Your task to perform on an android device: change keyboard looks Image 0: 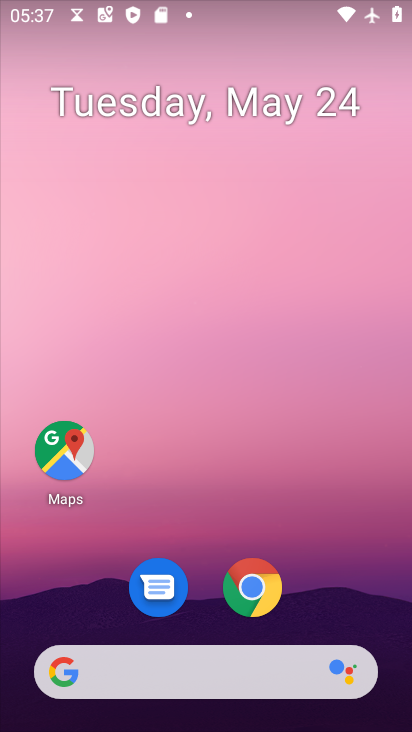
Step 0: click (223, 70)
Your task to perform on an android device: change keyboard looks Image 1: 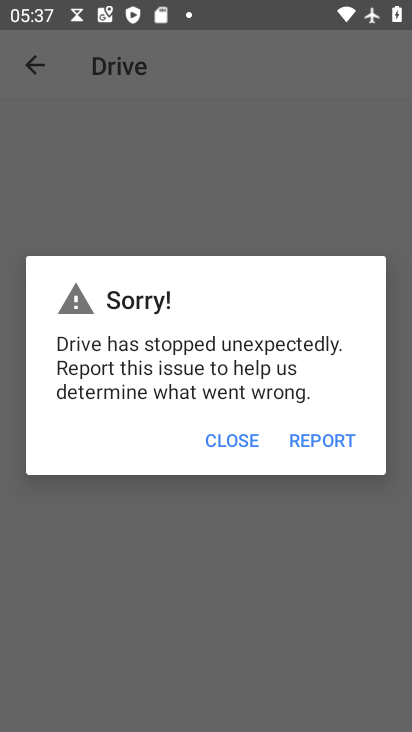
Step 1: press home button
Your task to perform on an android device: change keyboard looks Image 2: 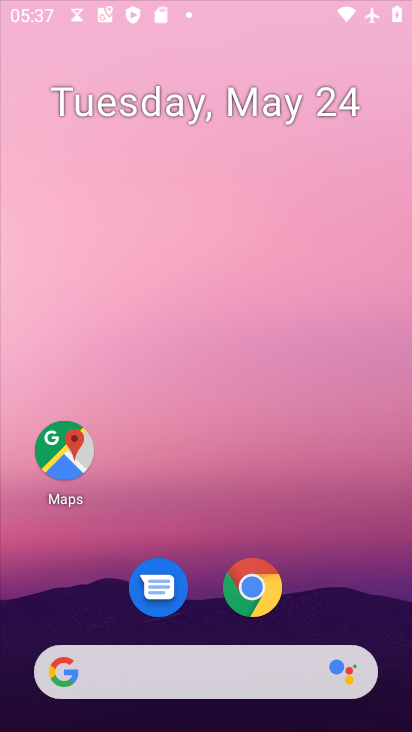
Step 2: drag from (307, 524) to (213, 67)
Your task to perform on an android device: change keyboard looks Image 3: 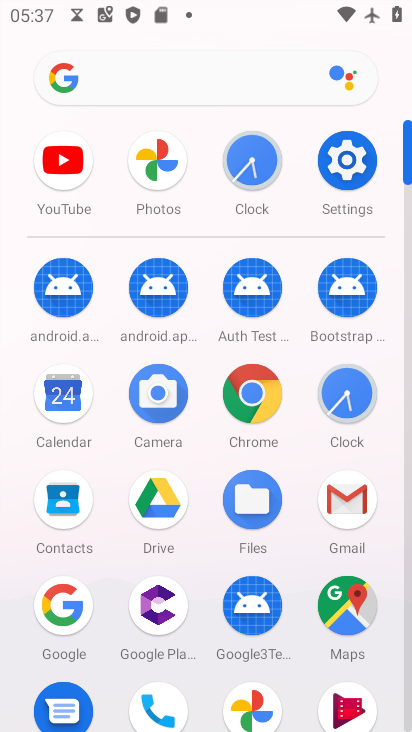
Step 3: click (357, 138)
Your task to perform on an android device: change keyboard looks Image 4: 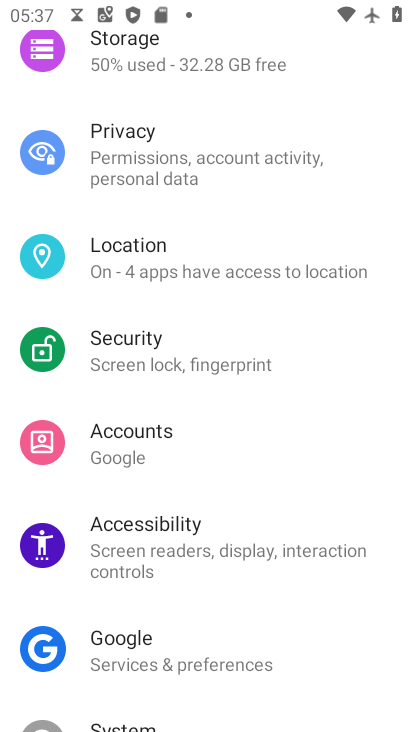
Step 4: drag from (257, 678) to (243, 272)
Your task to perform on an android device: change keyboard looks Image 5: 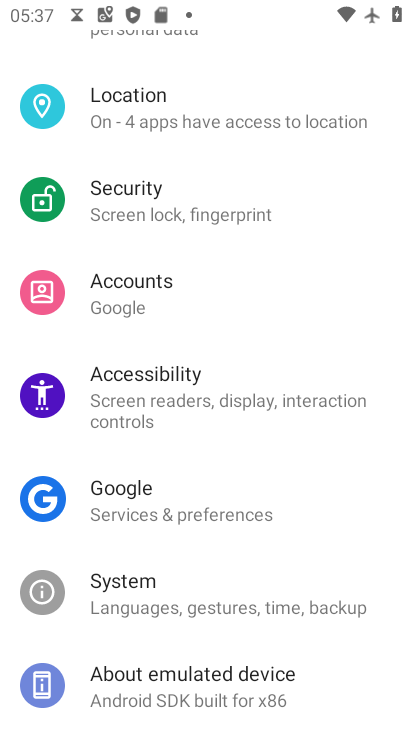
Step 5: click (220, 598)
Your task to perform on an android device: change keyboard looks Image 6: 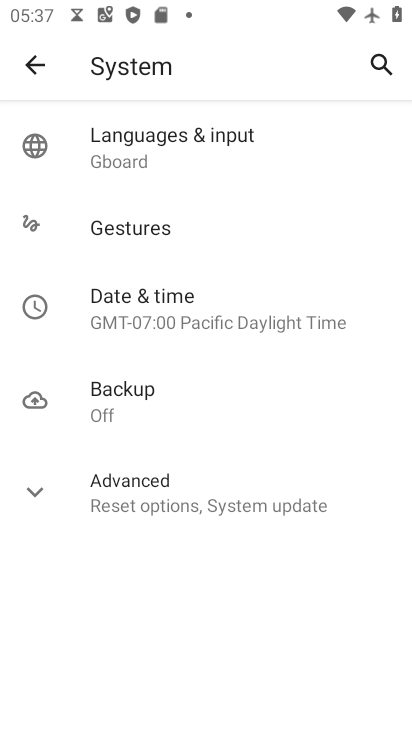
Step 6: click (149, 137)
Your task to perform on an android device: change keyboard looks Image 7: 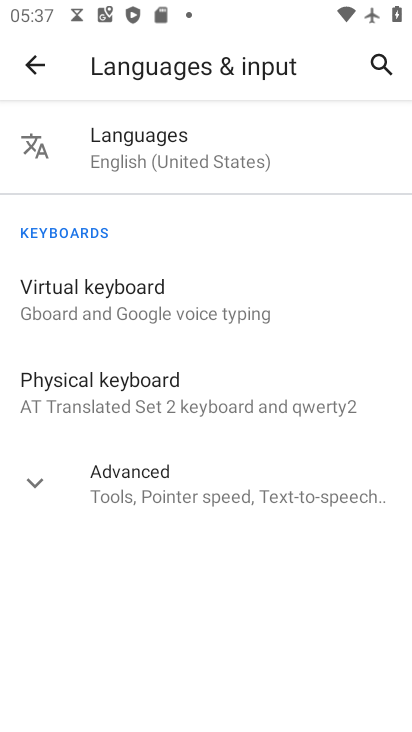
Step 7: click (169, 274)
Your task to perform on an android device: change keyboard looks Image 8: 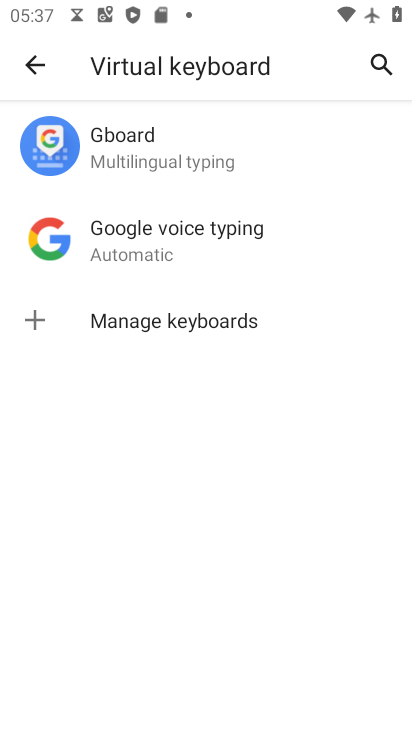
Step 8: click (177, 131)
Your task to perform on an android device: change keyboard looks Image 9: 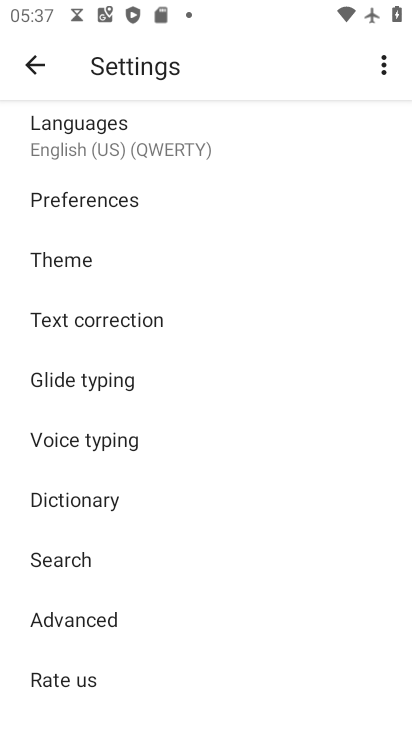
Step 9: click (155, 261)
Your task to perform on an android device: change keyboard looks Image 10: 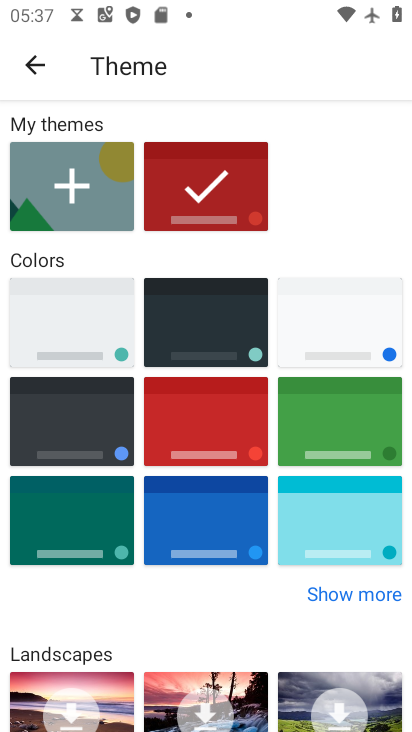
Step 10: click (191, 499)
Your task to perform on an android device: change keyboard looks Image 11: 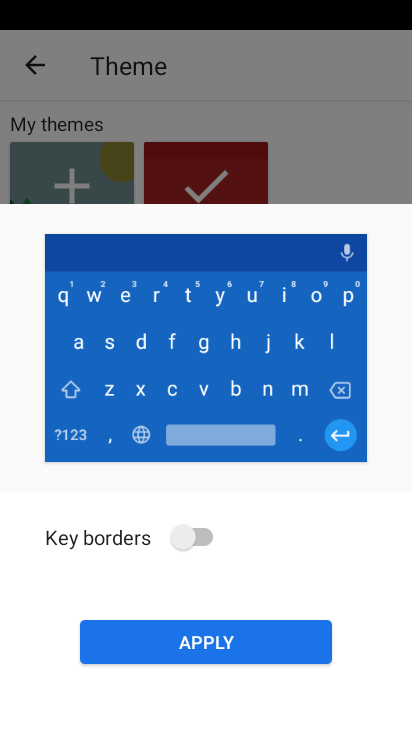
Step 11: click (205, 628)
Your task to perform on an android device: change keyboard looks Image 12: 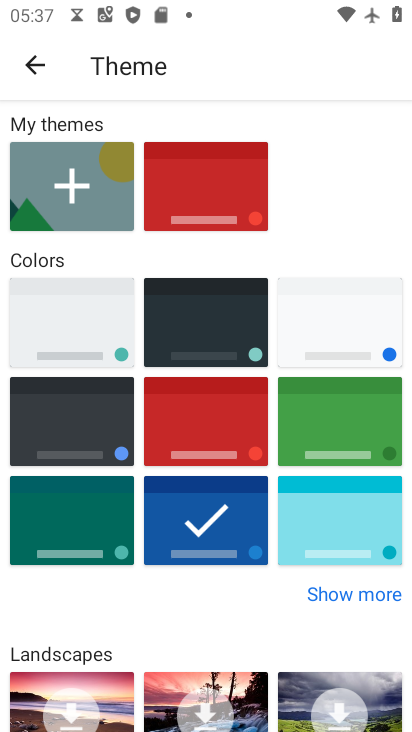
Step 12: task complete